Your task to perform on an android device: turn pop-ups off in chrome Image 0: 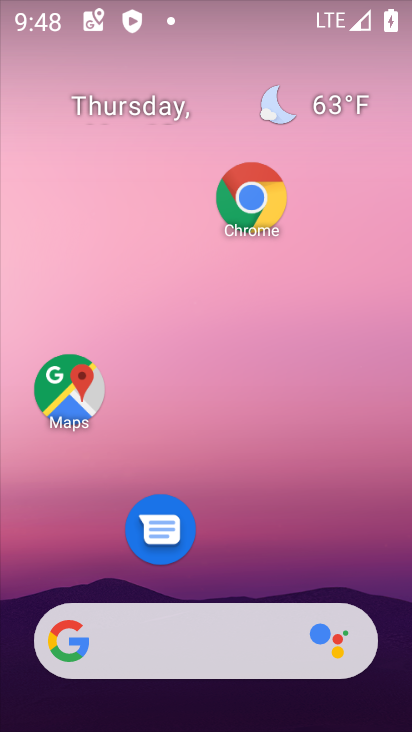
Step 0: drag from (285, 691) to (288, 284)
Your task to perform on an android device: turn pop-ups off in chrome Image 1: 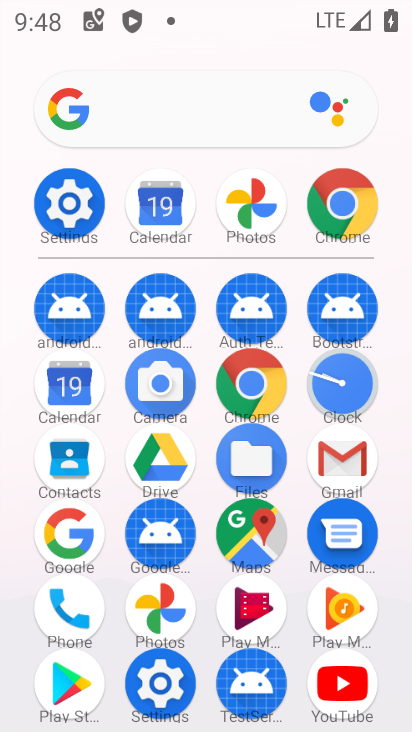
Step 1: click (347, 220)
Your task to perform on an android device: turn pop-ups off in chrome Image 2: 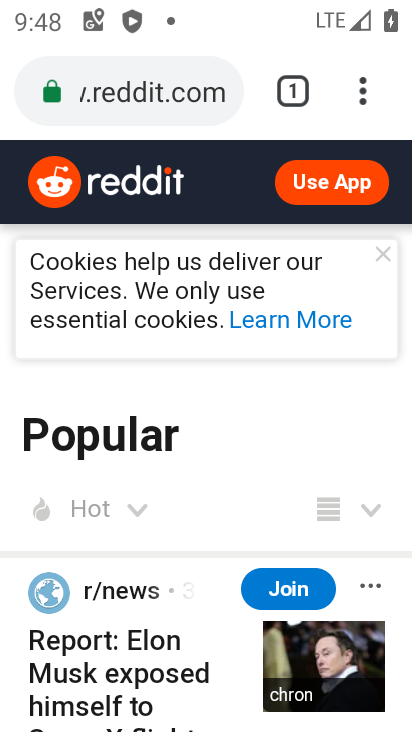
Step 2: click (358, 91)
Your task to perform on an android device: turn pop-ups off in chrome Image 3: 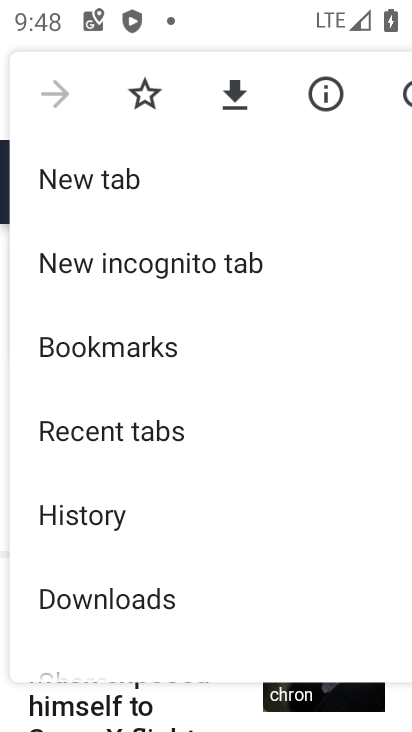
Step 3: drag from (176, 569) to (214, 151)
Your task to perform on an android device: turn pop-ups off in chrome Image 4: 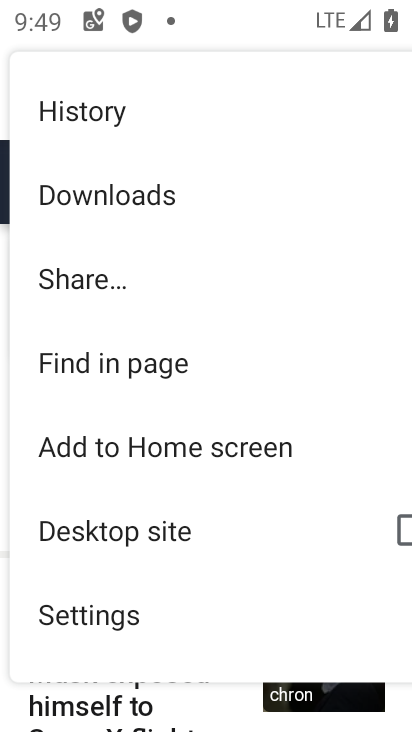
Step 4: click (141, 621)
Your task to perform on an android device: turn pop-ups off in chrome Image 5: 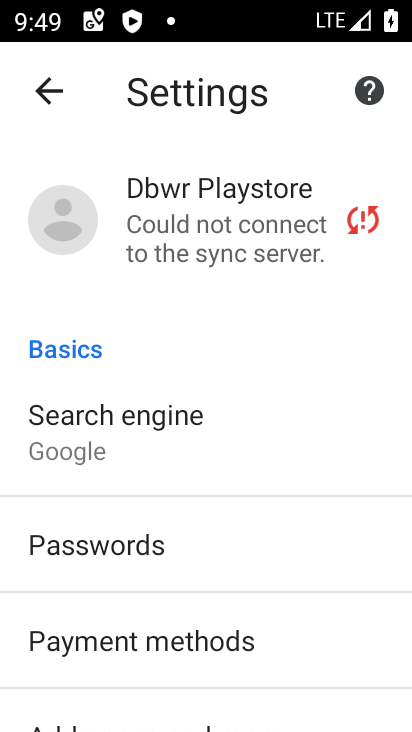
Step 5: drag from (250, 595) to (256, 68)
Your task to perform on an android device: turn pop-ups off in chrome Image 6: 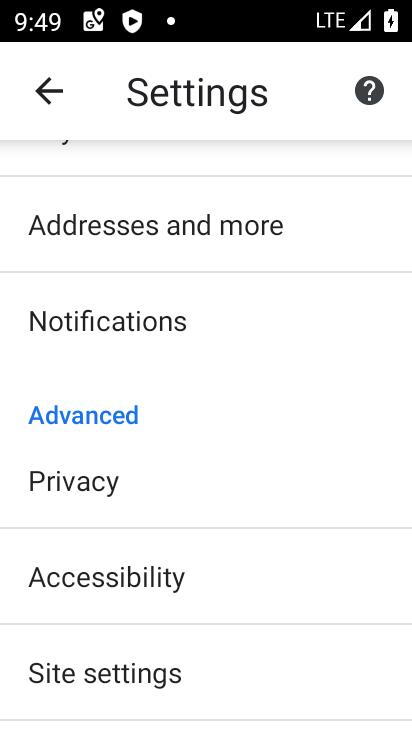
Step 6: click (158, 675)
Your task to perform on an android device: turn pop-ups off in chrome Image 7: 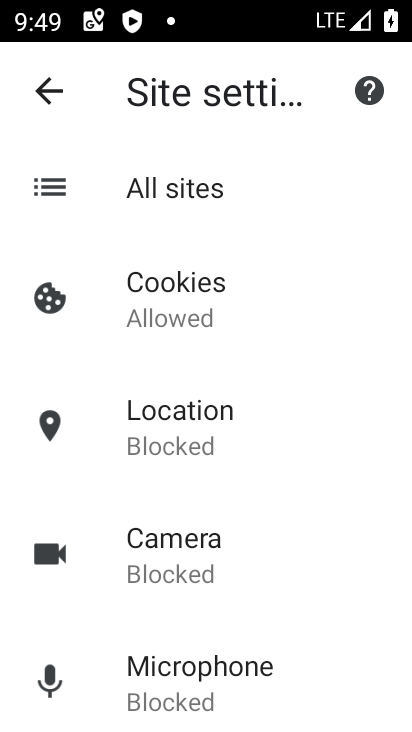
Step 7: drag from (222, 592) to (306, 125)
Your task to perform on an android device: turn pop-ups off in chrome Image 8: 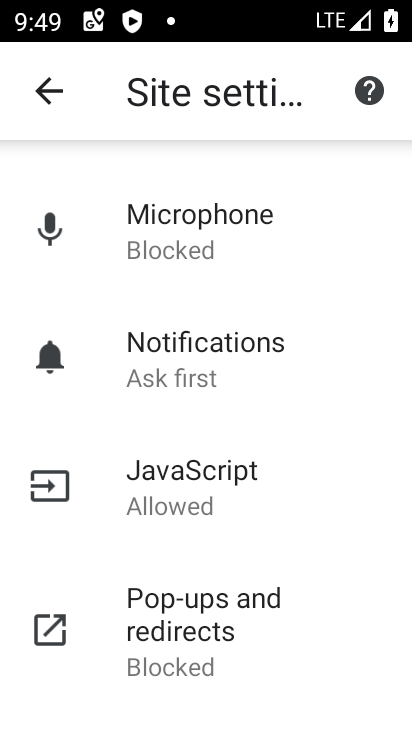
Step 8: click (273, 619)
Your task to perform on an android device: turn pop-ups off in chrome Image 9: 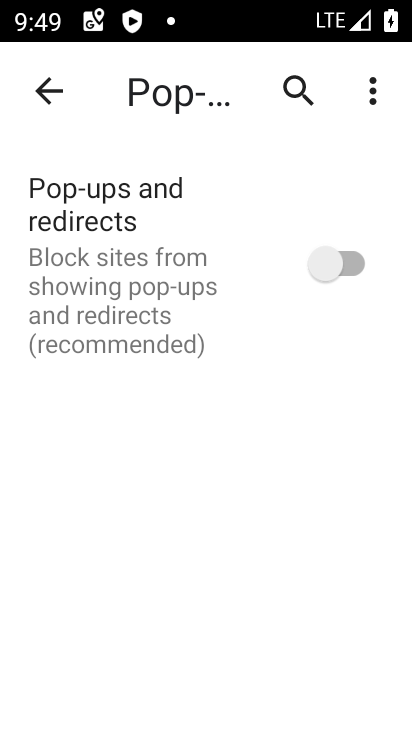
Step 9: task complete